Your task to perform on an android device: Open the web browser Image 0: 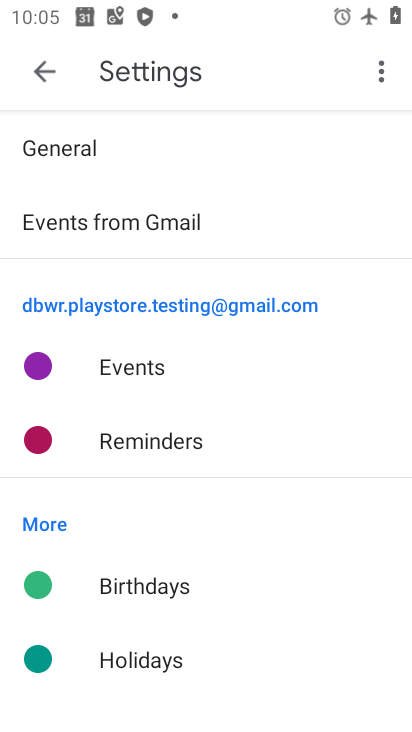
Step 0: press home button
Your task to perform on an android device: Open the web browser Image 1: 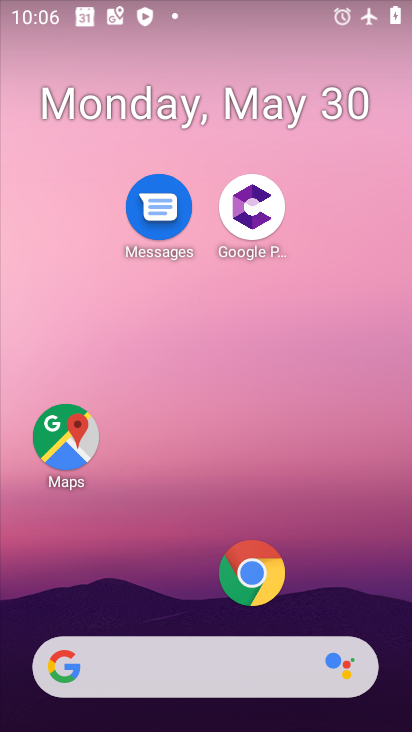
Step 1: drag from (175, 698) to (192, 190)
Your task to perform on an android device: Open the web browser Image 2: 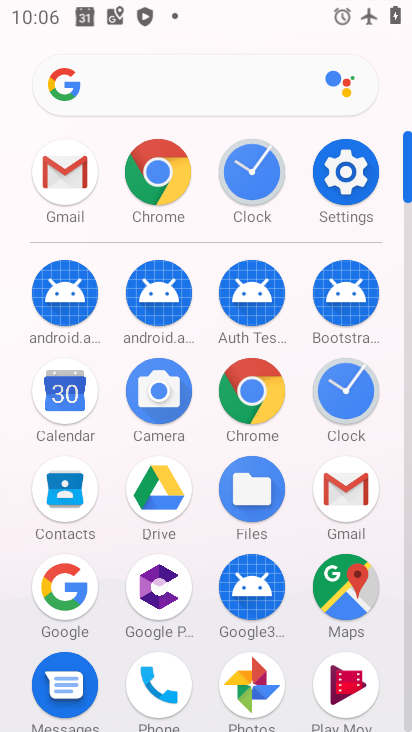
Step 2: click (172, 188)
Your task to perform on an android device: Open the web browser Image 3: 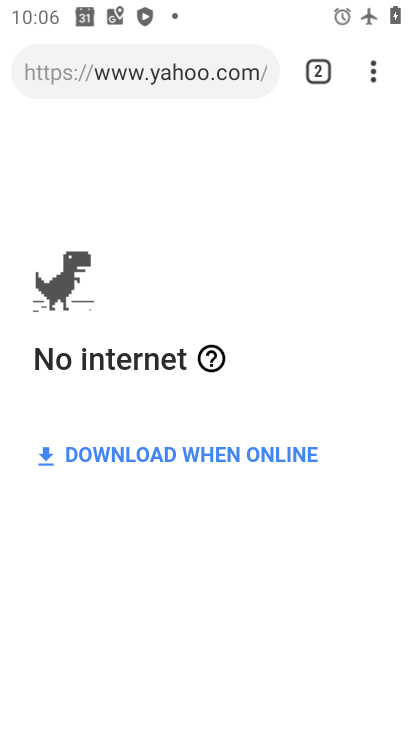
Step 3: task complete